Your task to perform on an android device: turn off picture-in-picture Image 0: 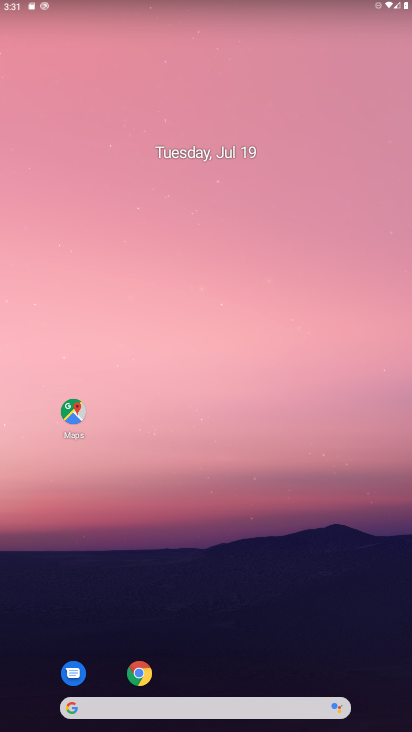
Step 0: click (142, 676)
Your task to perform on an android device: turn off picture-in-picture Image 1: 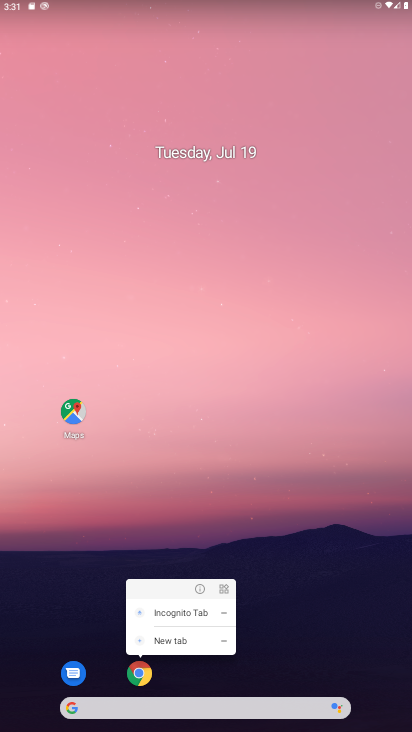
Step 1: click (197, 590)
Your task to perform on an android device: turn off picture-in-picture Image 2: 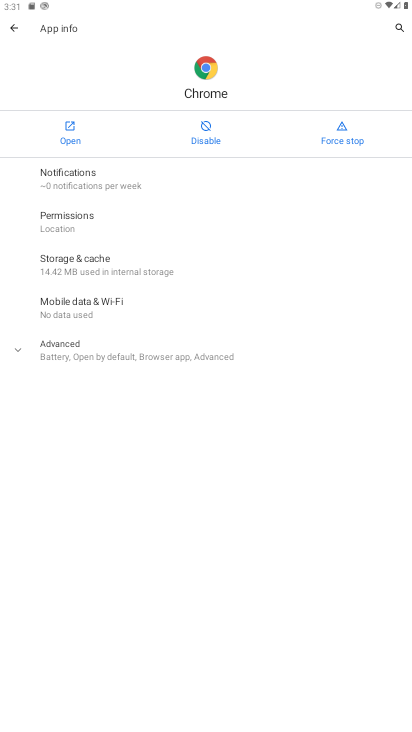
Step 2: click (137, 360)
Your task to perform on an android device: turn off picture-in-picture Image 3: 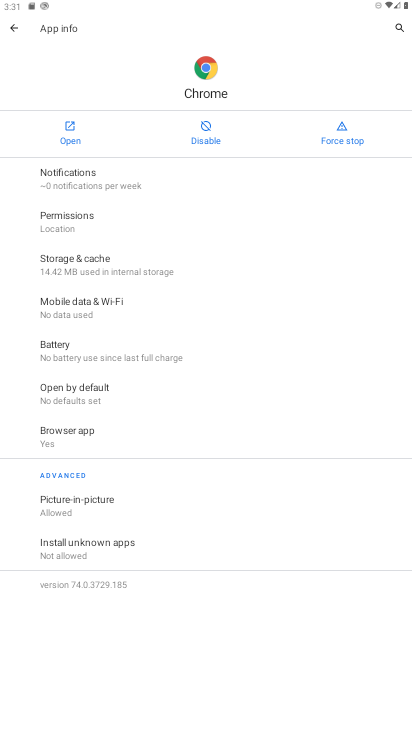
Step 3: click (104, 509)
Your task to perform on an android device: turn off picture-in-picture Image 4: 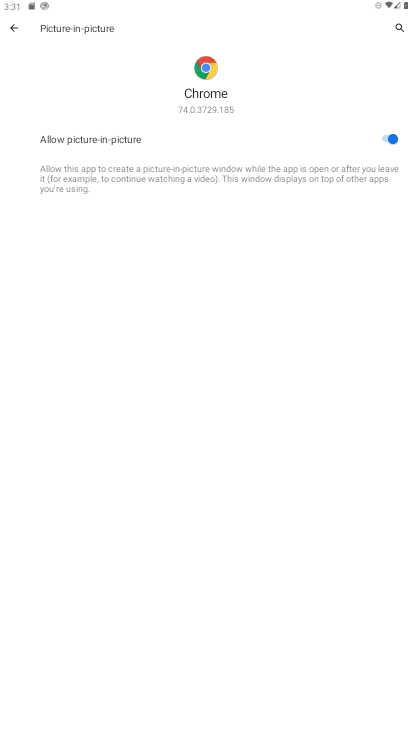
Step 4: click (372, 137)
Your task to perform on an android device: turn off picture-in-picture Image 5: 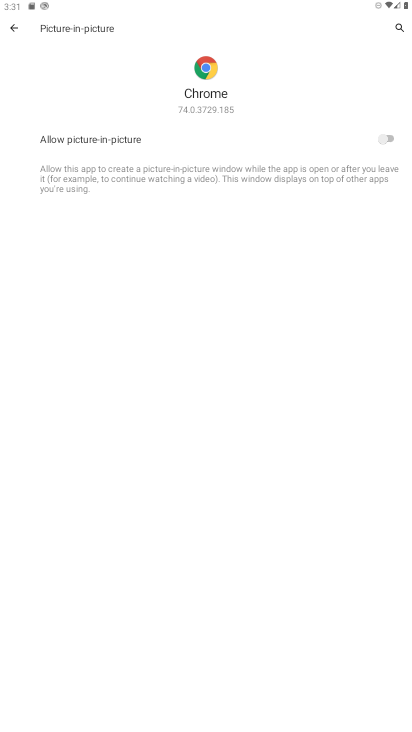
Step 5: task complete